Your task to perform on an android device: When is my next meeting? Image 0: 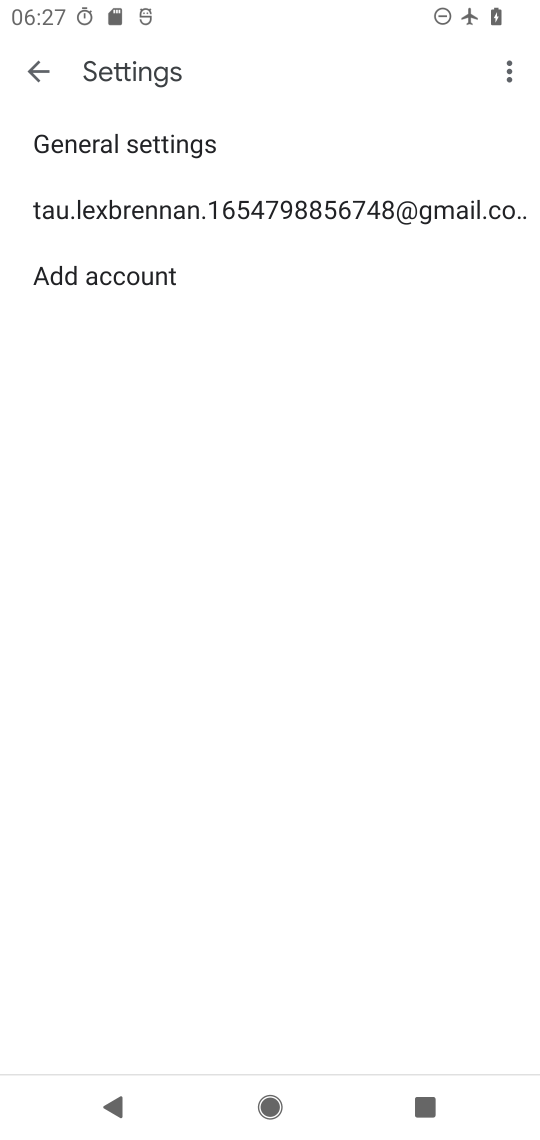
Step 0: press home button
Your task to perform on an android device: When is my next meeting? Image 1: 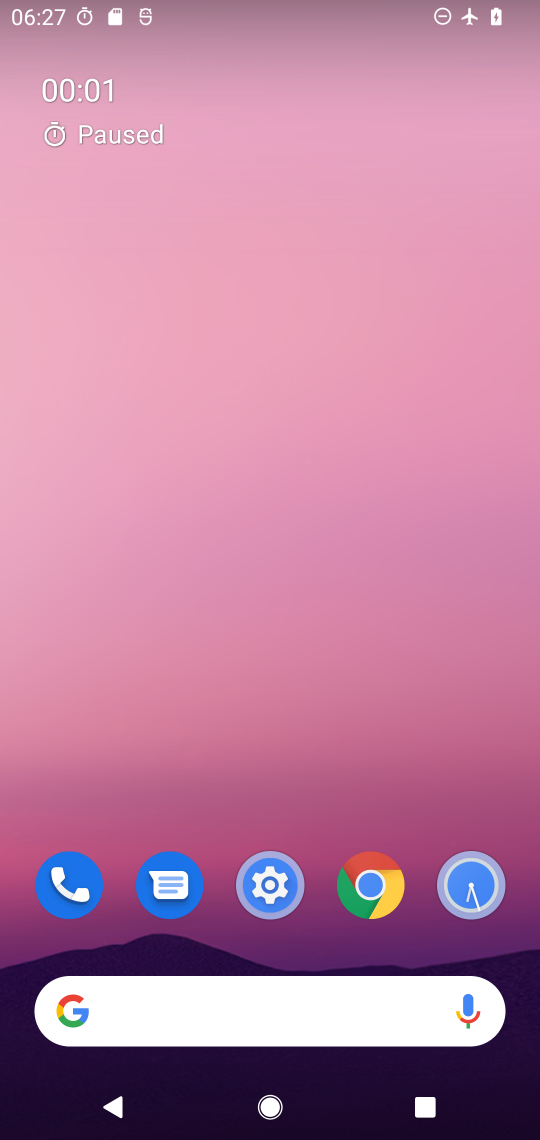
Step 1: drag from (227, 839) to (233, 129)
Your task to perform on an android device: When is my next meeting? Image 2: 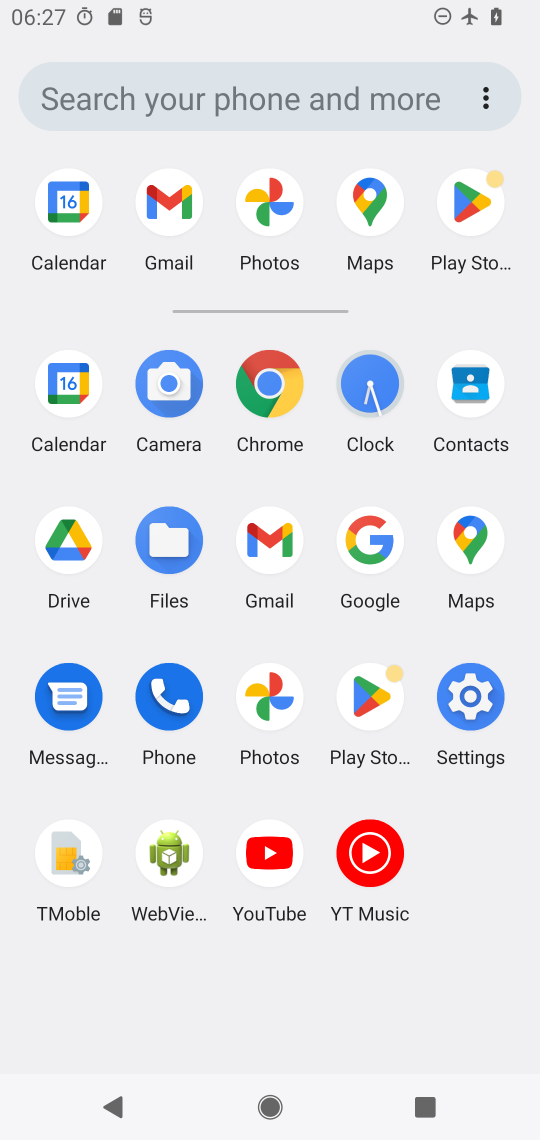
Step 2: click (56, 193)
Your task to perform on an android device: When is my next meeting? Image 3: 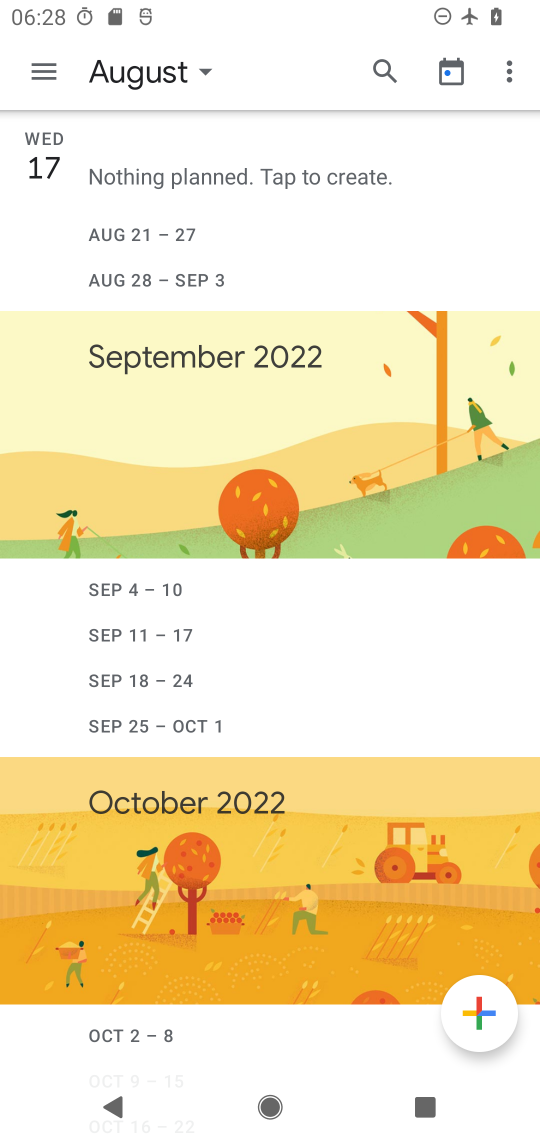
Step 3: task complete